Your task to perform on an android device: Open privacy settings Image 0: 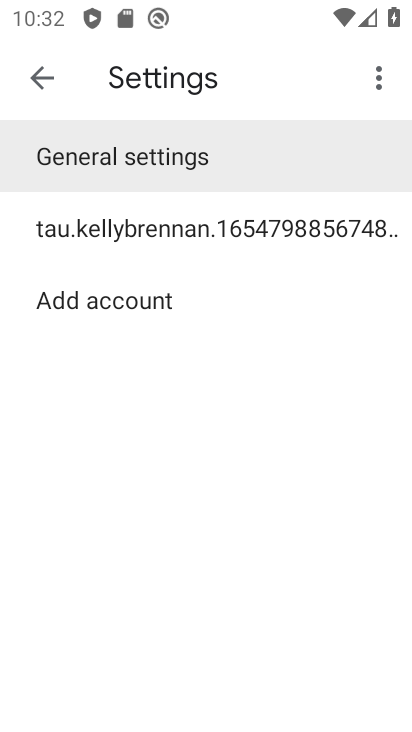
Step 0: press back button
Your task to perform on an android device: Open privacy settings Image 1: 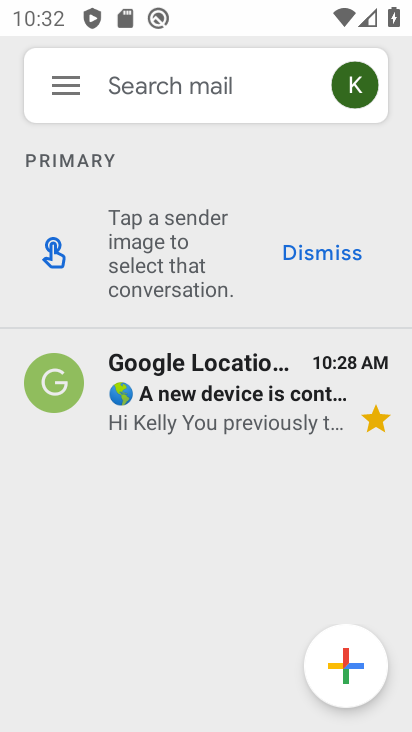
Step 1: press back button
Your task to perform on an android device: Open privacy settings Image 2: 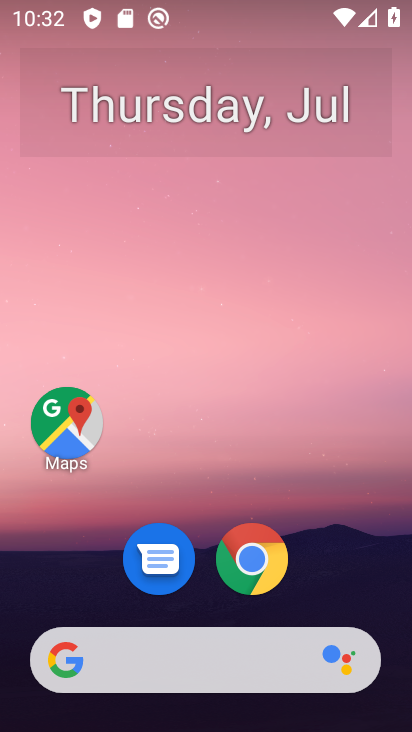
Step 2: click (250, 560)
Your task to perform on an android device: Open privacy settings Image 3: 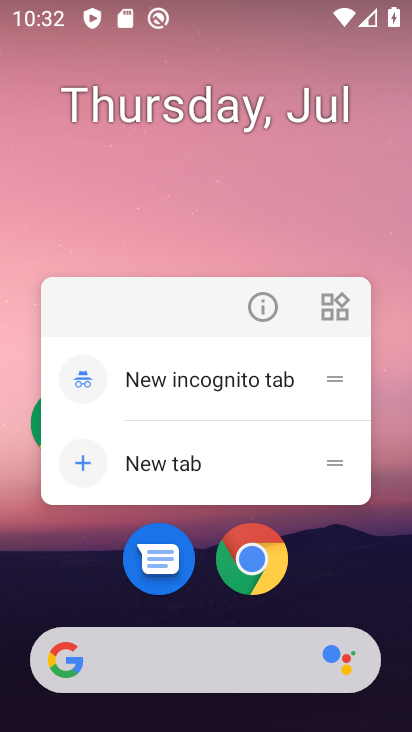
Step 3: click (253, 566)
Your task to perform on an android device: Open privacy settings Image 4: 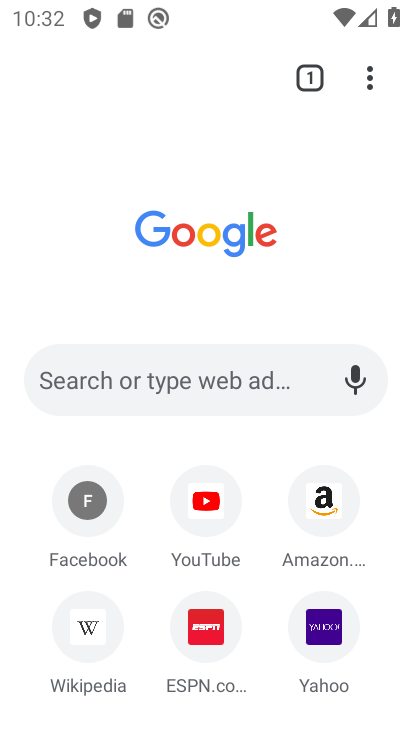
Step 4: drag from (367, 78) to (105, 635)
Your task to perform on an android device: Open privacy settings Image 5: 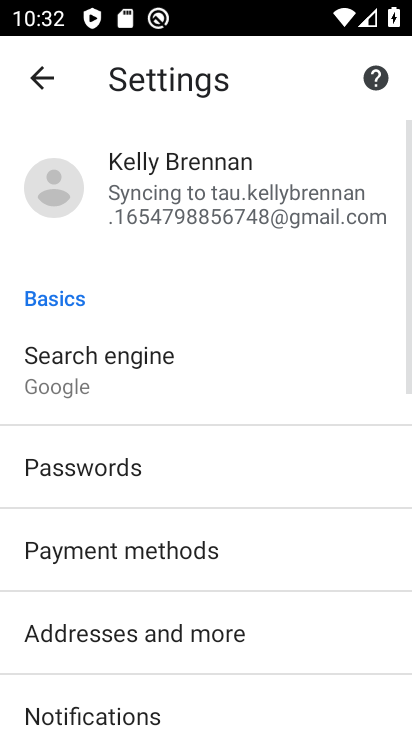
Step 5: drag from (168, 626) to (250, 60)
Your task to perform on an android device: Open privacy settings Image 6: 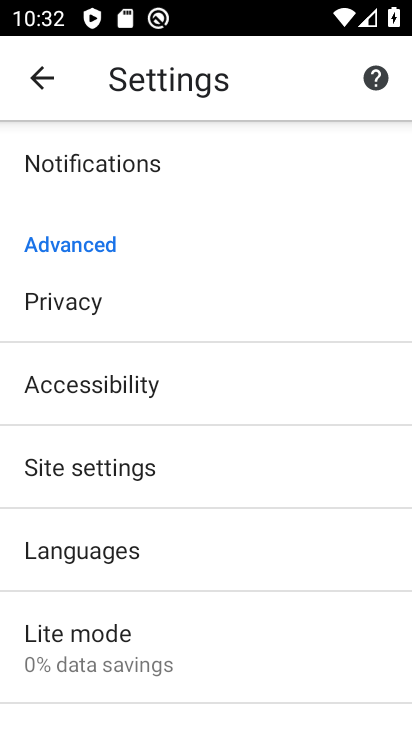
Step 6: click (95, 301)
Your task to perform on an android device: Open privacy settings Image 7: 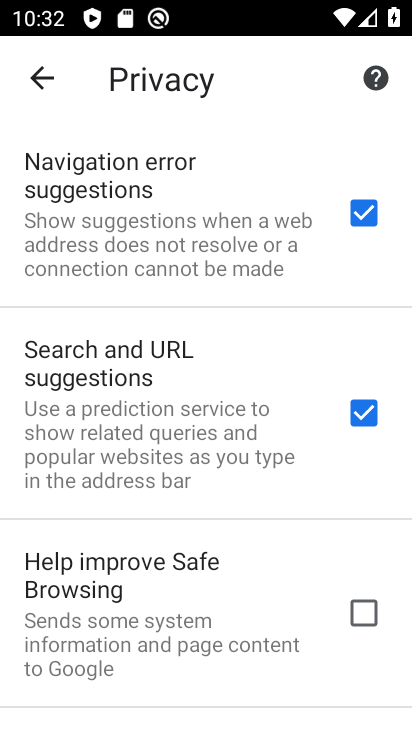
Step 7: task complete